Your task to perform on an android device: Go to ESPN.com Image 0: 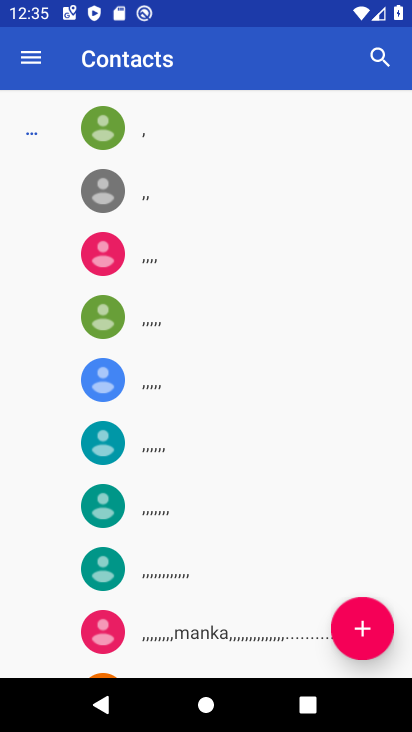
Step 0: press home button
Your task to perform on an android device: Go to ESPN.com Image 1: 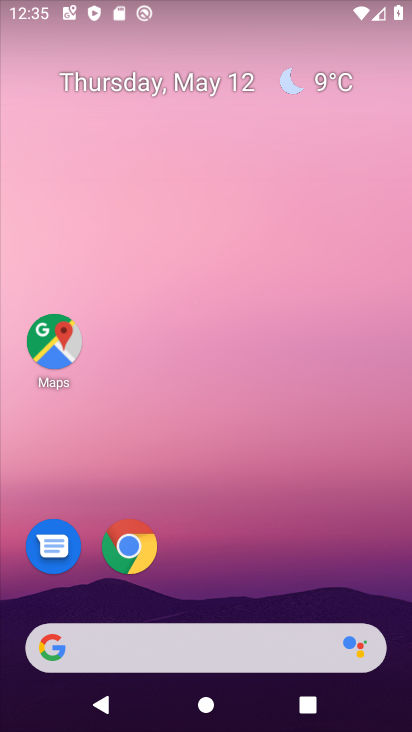
Step 1: drag from (229, 557) to (239, 100)
Your task to perform on an android device: Go to ESPN.com Image 2: 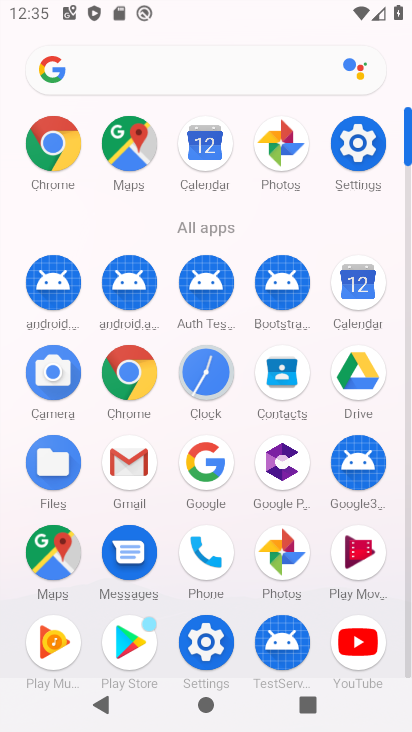
Step 2: click (53, 164)
Your task to perform on an android device: Go to ESPN.com Image 3: 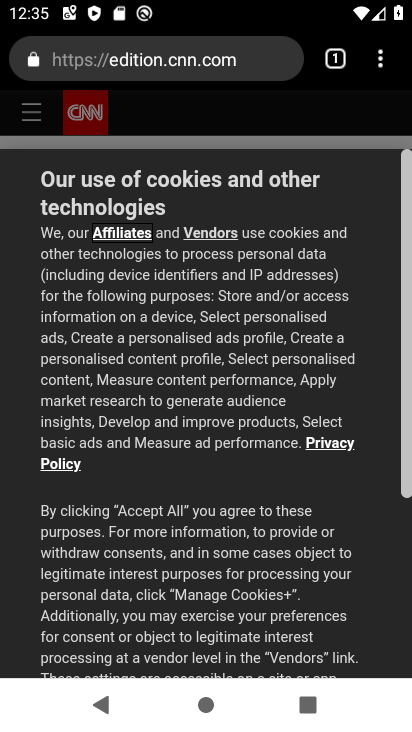
Step 3: click (141, 59)
Your task to perform on an android device: Go to ESPN.com Image 4: 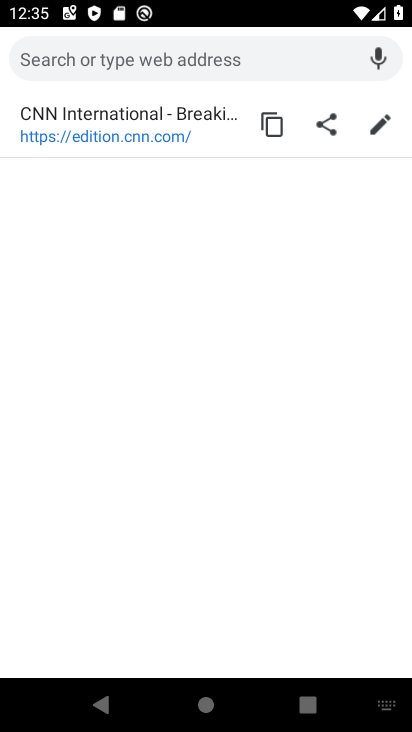
Step 4: type "ESPN.com"
Your task to perform on an android device: Go to ESPN.com Image 5: 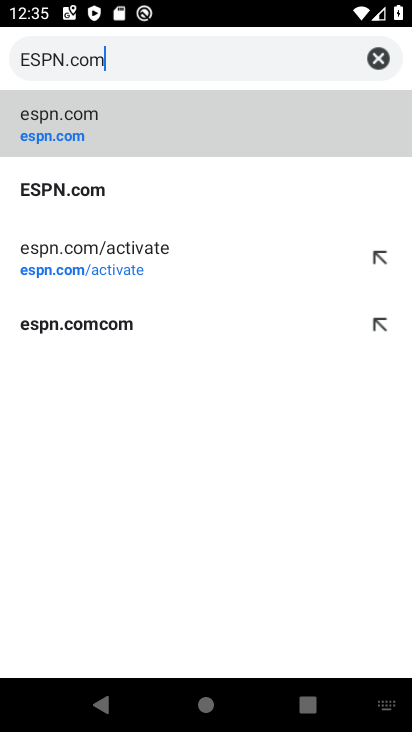
Step 5: click (69, 130)
Your task to perform on an android device: Go to ESPN.com Image 6: 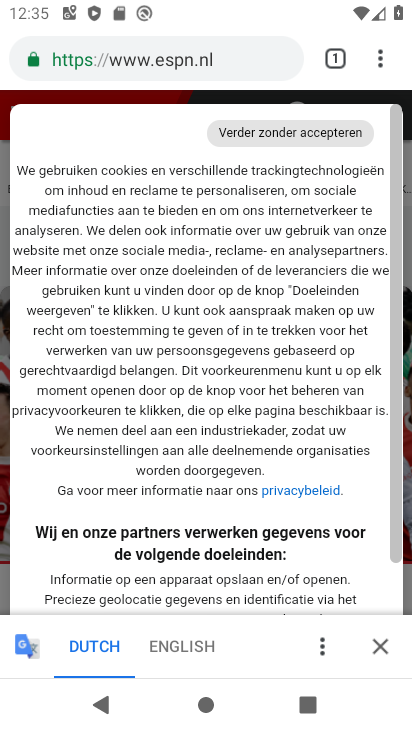
Step 6: task complete